Your task to perform on an android device: Open Google Chrome and click the shortcut for Amazon.com Image 0: 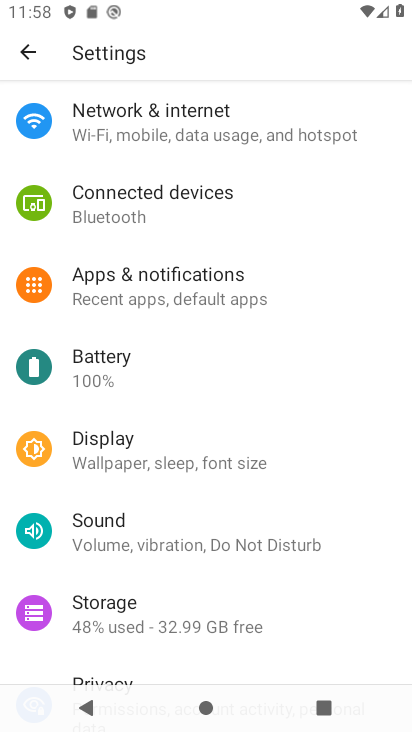
Step 0: press home button
Your task to perform on an android device: Open Google Chrome and click the shortcut for Amazon.com Image 1: 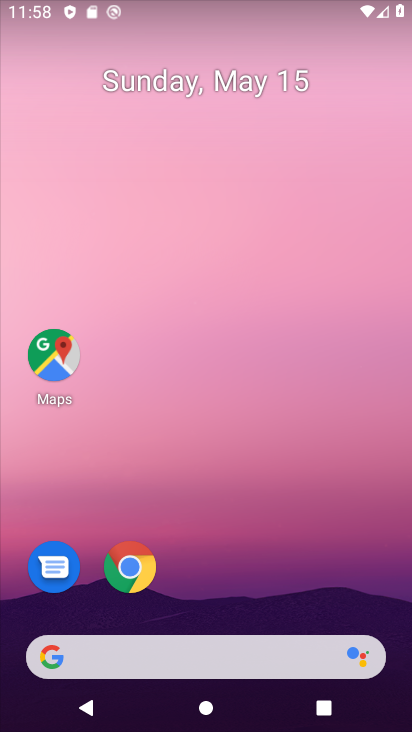
Step 1: click (141, 565)
Your task to perform on an android device: Open Google Chrome and click the shortcut for Amazon.com Image 2: 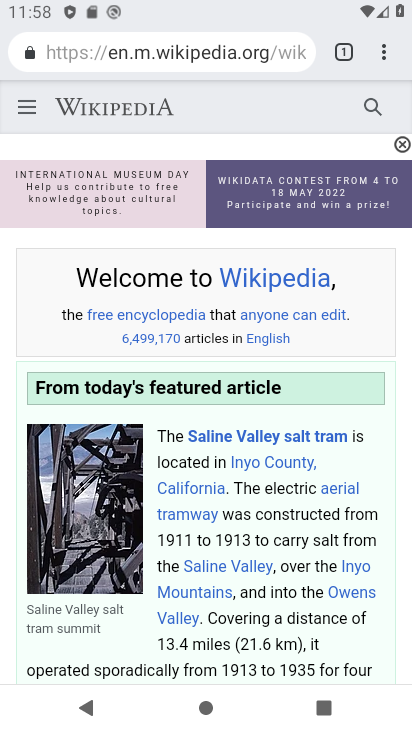
Step 2: click (218, 50)
Your task to perform on an android device: Open Google Chrome and click the shortcut for Amazon.com Image 3: 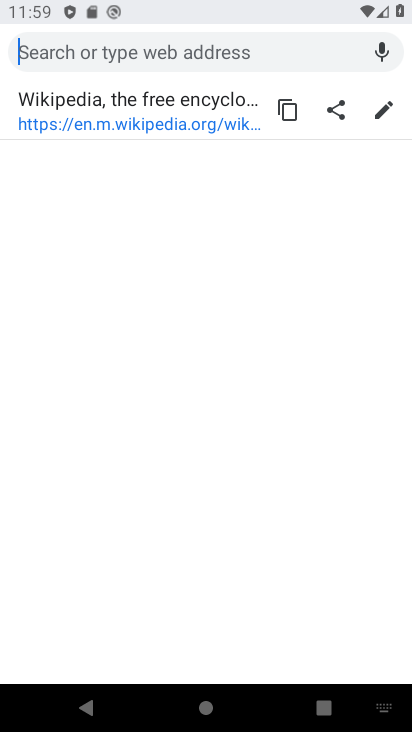
Step 3: type "amazon.com"
Your task to perform on an android device: Open Google Chrome and click the shortcut for Amazon.com Image 4: 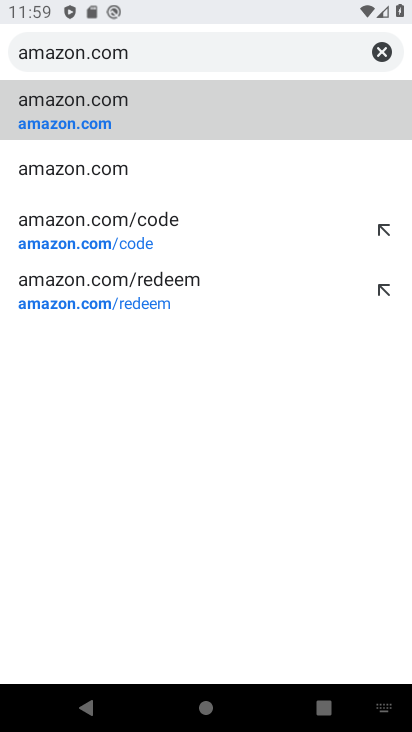
Step 4: click (44, 128)
Your task to perform on an android device: Open Google Chrome and click the shortcut for Amazon.com Image 5: 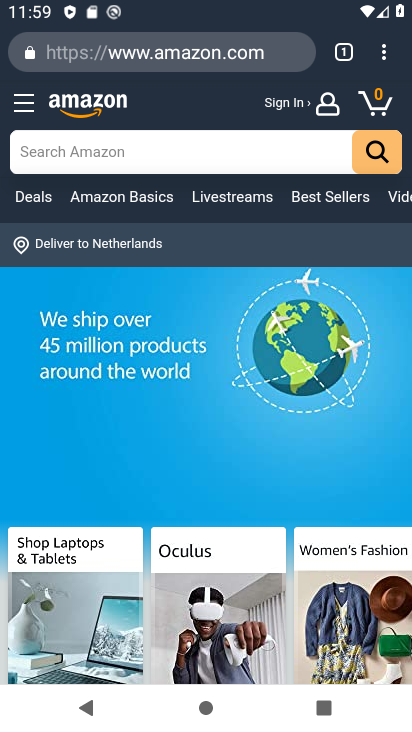
Step 5: task complete